Your task to perform on an android device: Open calendar and show me the first week of next month Image 0: 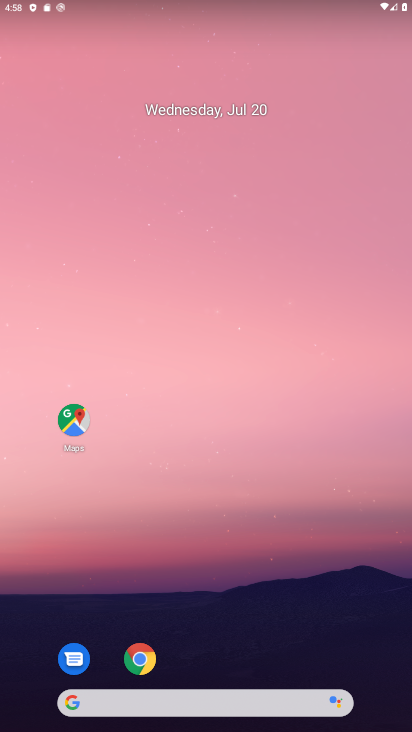
Step 0: drag from (246, 685) to (262, 230)
Your task to perform on an android device: Open calendar and show me the first week of next month Image 1: 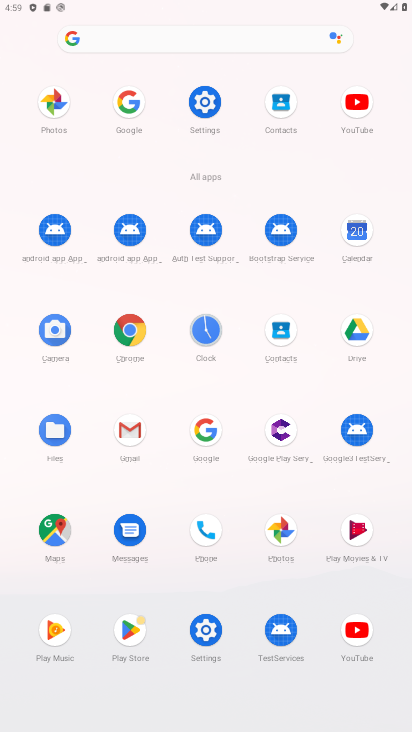
Step 1: click (353, 236)
Your task to perform on an android device: Open calendar and show me the first week of next month Image 2: 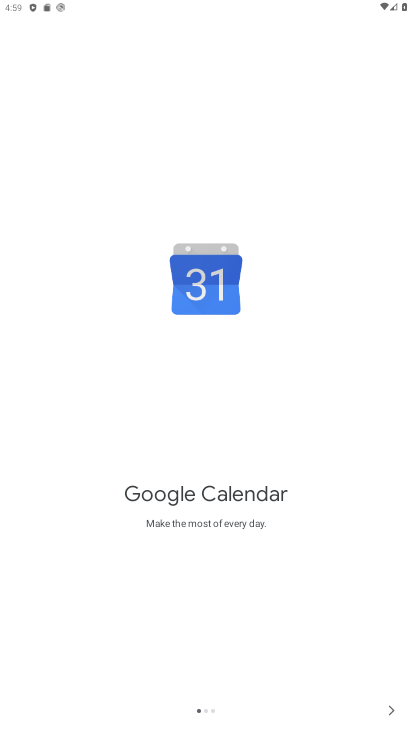
Step 2: click (380, 711)
Your task to perform on an android device: Open calendar and show me the first week of next month Image 3: 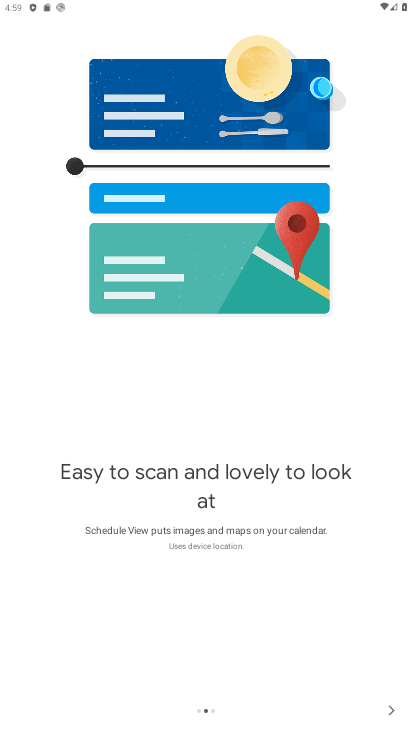
Step 3: click (380, 711)
Your task to perform on an android device: Open calendar and show me the first week of next month Image 4: 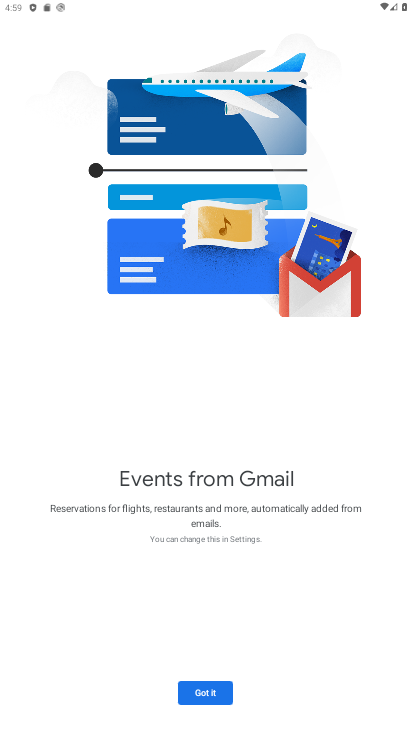
Step 4: click (380, 711)
Your task to perform on an android device: Open calendar and show me the first week of next month Image 5: 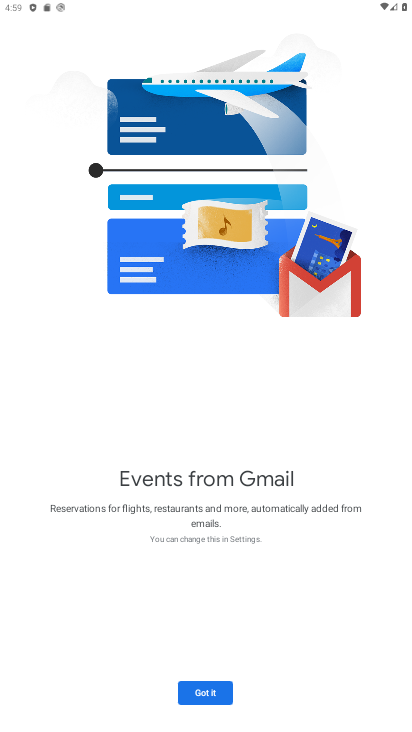
Step 5: click (199, 688)
Your task to perform on an android device: Open calendar and show me the first week of next month Image 6: 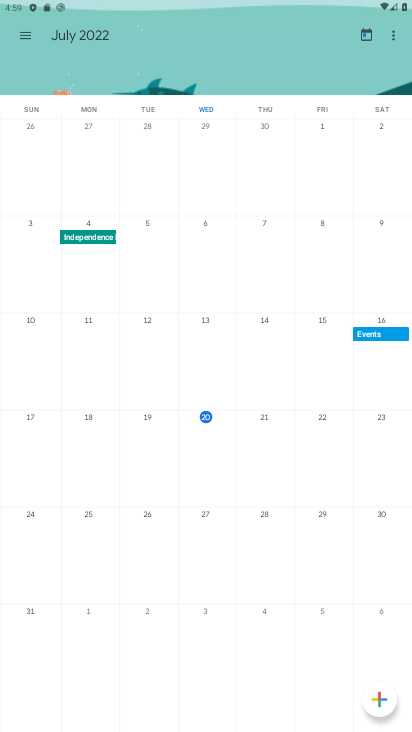
Step 6: drag from (394, 268) to (21, 162)
Your task to perform on an android device: Open calendar and show me the first week of next month Image 7: 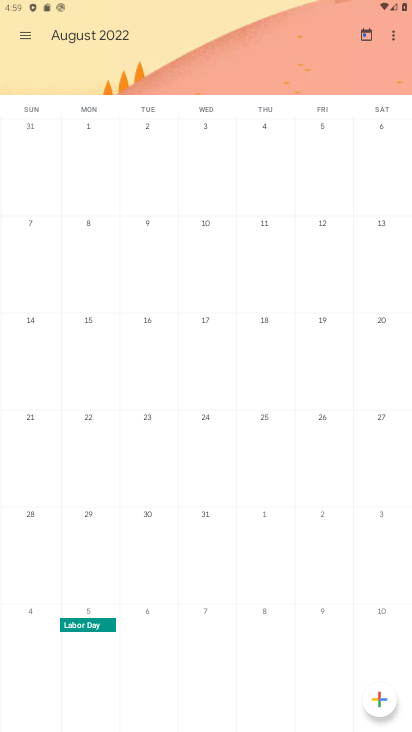
Step 7: drag from (43, 145) to (47, 415)
Your task to perform on an android device: Open calendar and show me the first week of next month Image 8: 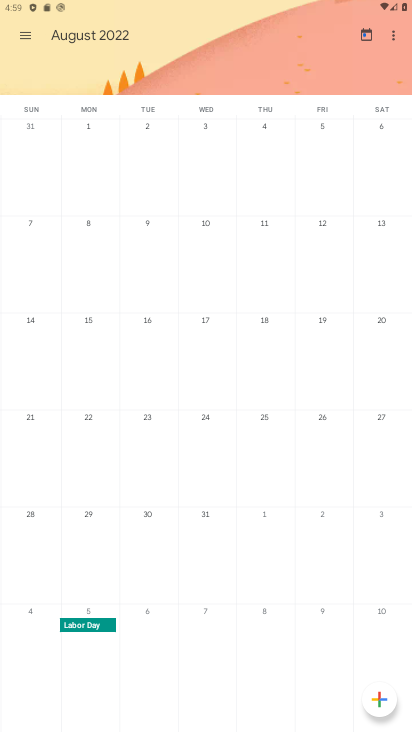
Step 8: click (102, 165)
Your task to perform on an android device: Open calendar and show me the first week of next month Image 9: 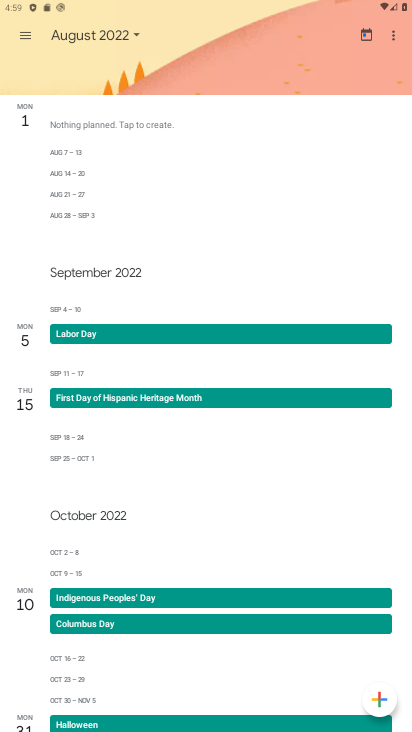
Step 9: task complete